Your task to perform on an android device: Open ESPN.com Image 0: 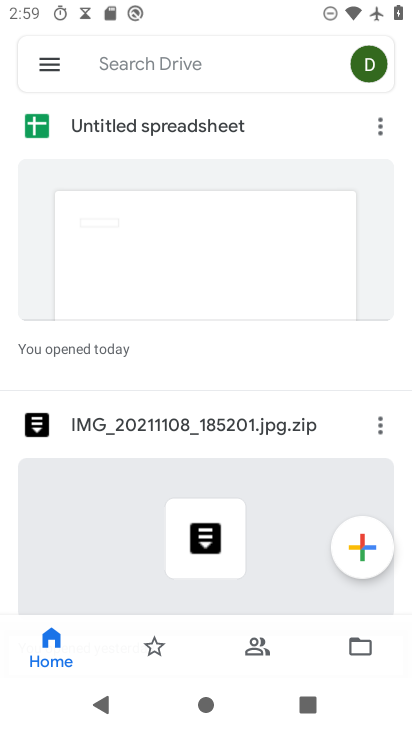
Step 0: press home button
Your task to perform on an android device: Open ESPN.com Image 1: 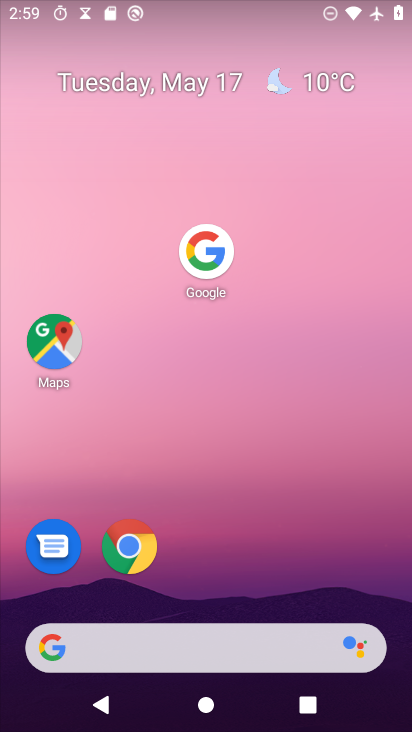
Step 1: click (136, 566)
Your task to perform on an android device: Open ESPN.com Image 2: 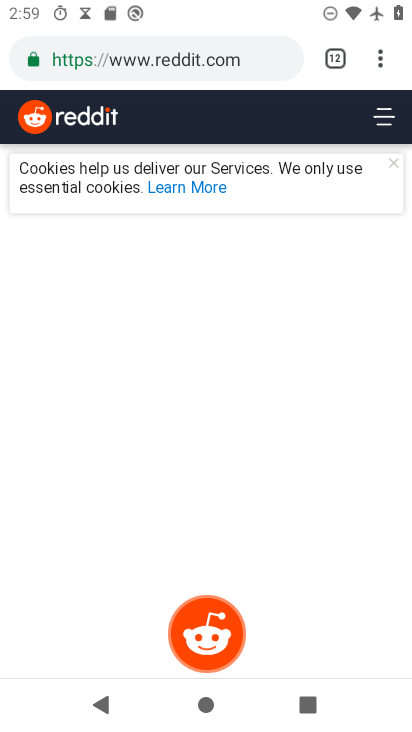
Step 2: drag from (381, 59) to (273, 126)
Your task to perform on an android device: Open ESPN.com Image 3: 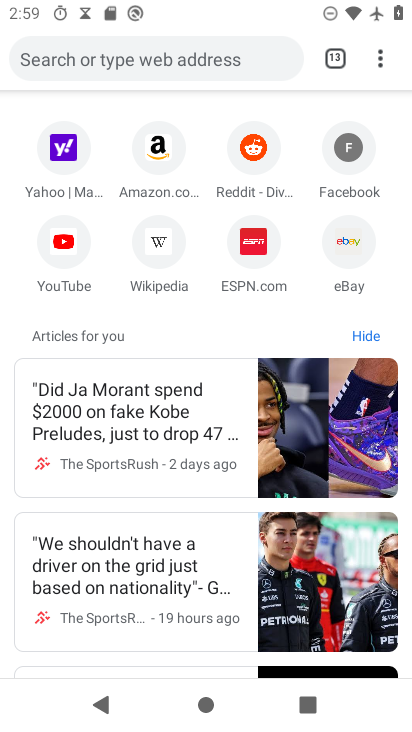
Step 3: click (249, 247)
Your task to perform on an android device: Open ESPN.com Image 4: 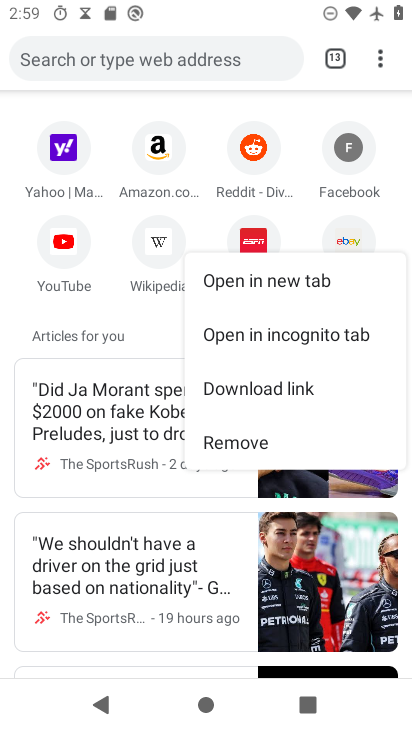
Step 4: click (263, 242)
Your task to perform on an android device: Open ESPN.com Image 5: 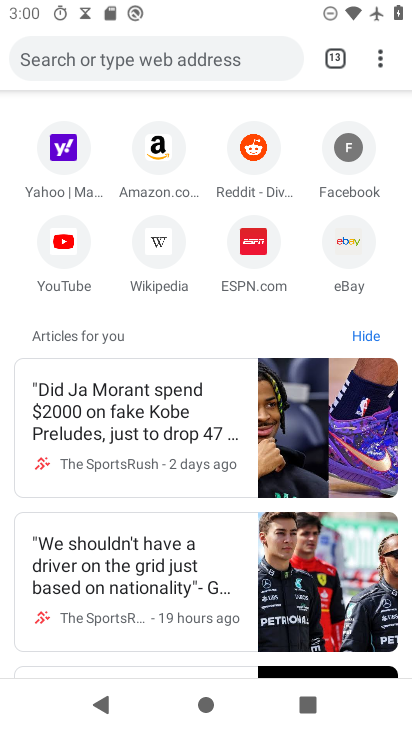
Step 5: click (258, 241)
Your task to perform on an android device: Open ESPN.com Image 6: 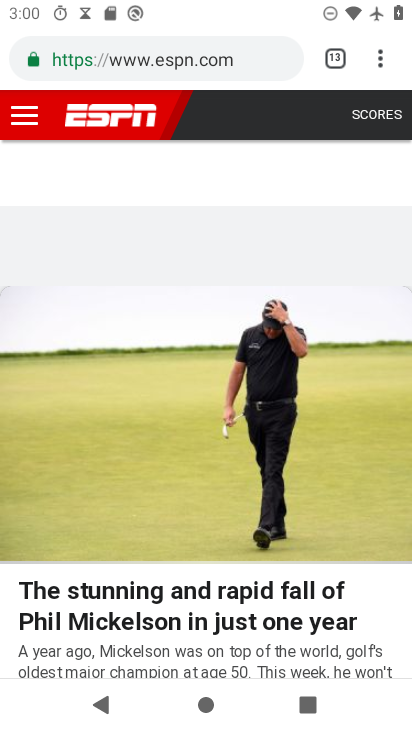
Step 6: task complete